Your task to perform on an android device: Find coffee shops on Maps Image 0: 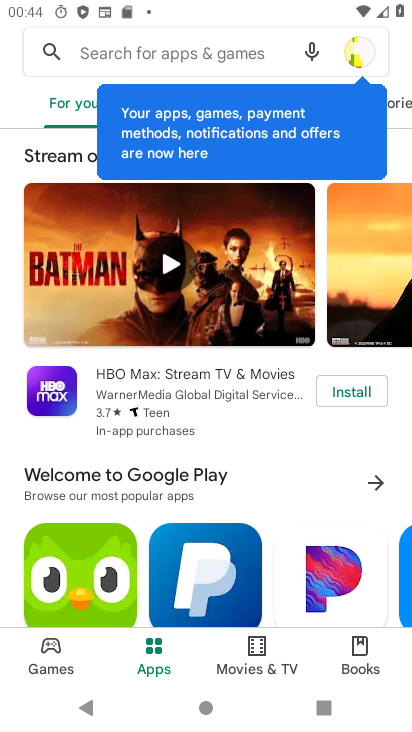
Step 0: press home button
Your task to perform on an android device: Find coffee shops on Maps Image 1: 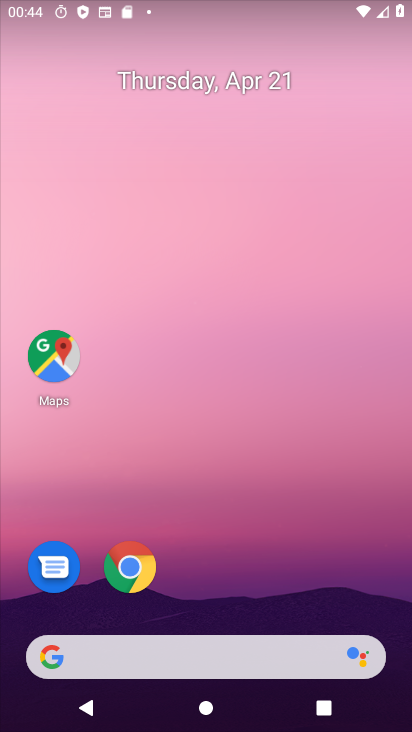
Step 1: drag from (232, 564) to (263, 225)
Your task to perform on an android device: Find coffee shops on Maps Image 2: 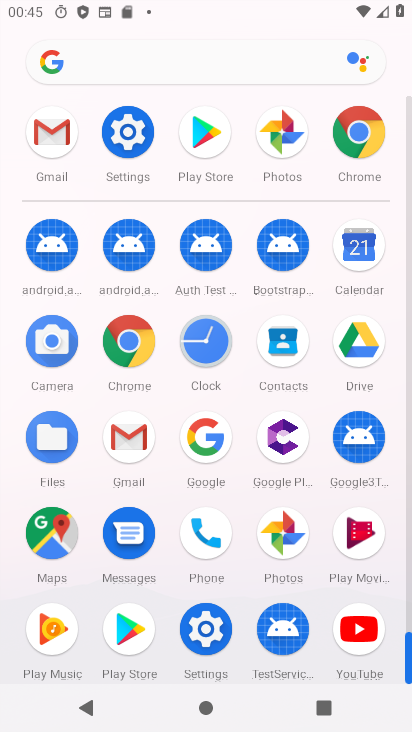
Step 2: click (57, 526)
Your task to perform on an android device: Find coffee shops on Maps Image 3: 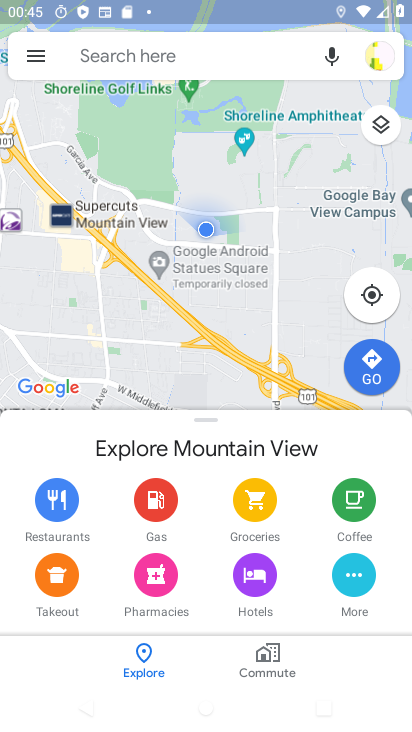
Step 3: click (252, 45)
Your task to perform on an android device: Find coffee shops on Maps Image 4: 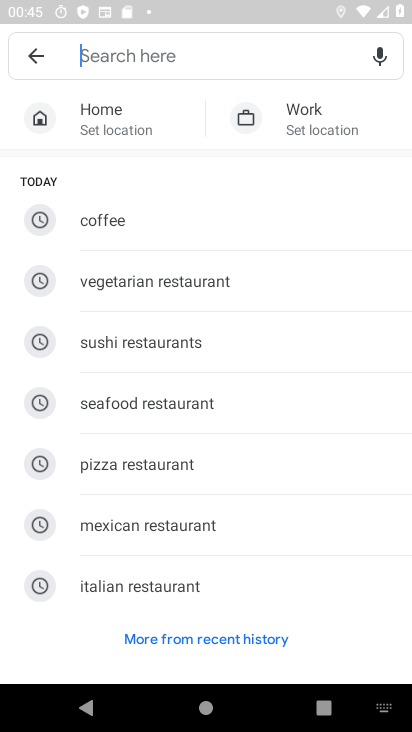
Step 4: type " coffee shops"
Your task to perform on an android device: Find coffee shops on Maps Image 5: 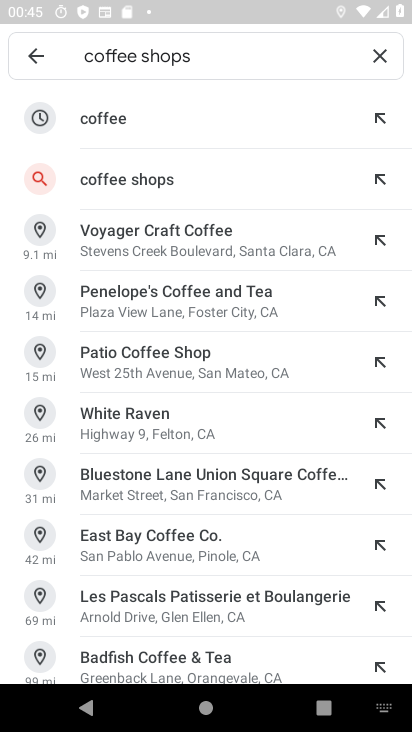
Step 5: click (184, 181)
Your task to perform on an android device: Find coffee shops on Maps Image 6: 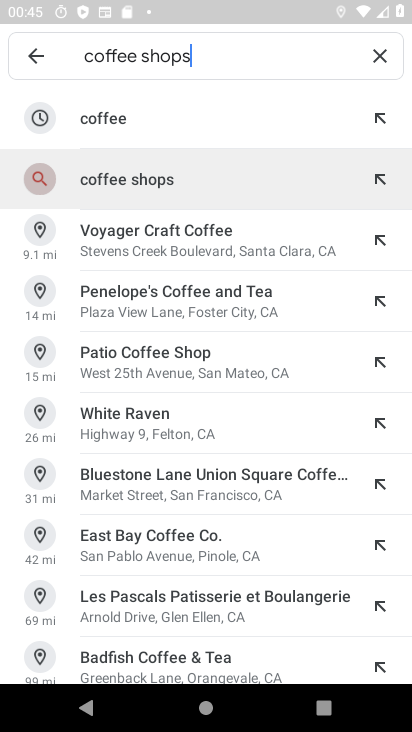
Step 6: click (184, 181)
Your task to perform on an android device: Find coffee shops on Maps Image 7: 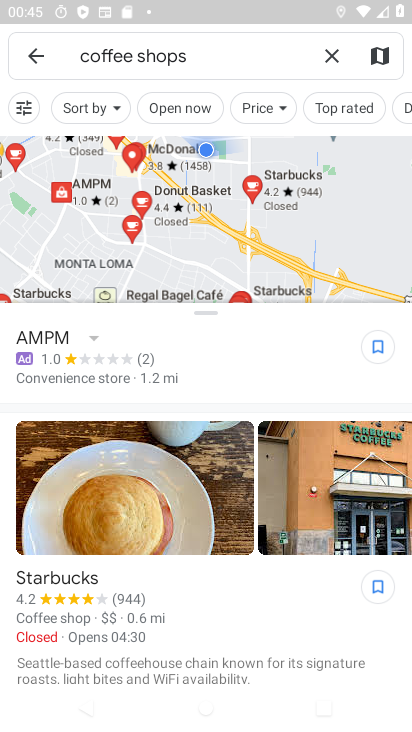
Step 7: task complete